Your task to perform on an android device: turn on priority inbox in the gmail app Image 0: 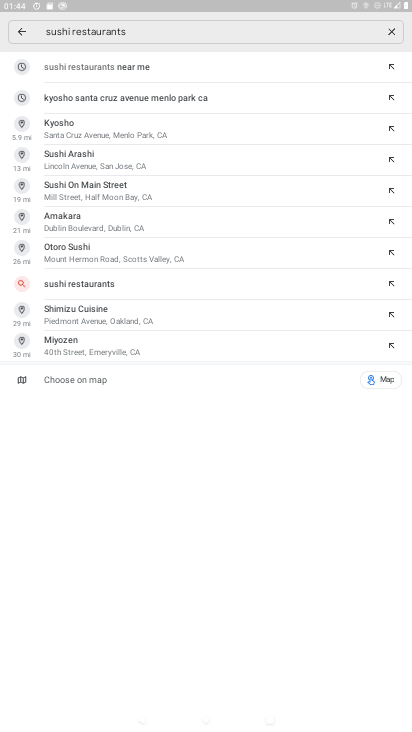
Step 0: press home button
Your task to perform on an android device: turn on priority inbox in the gmail app Image 1: 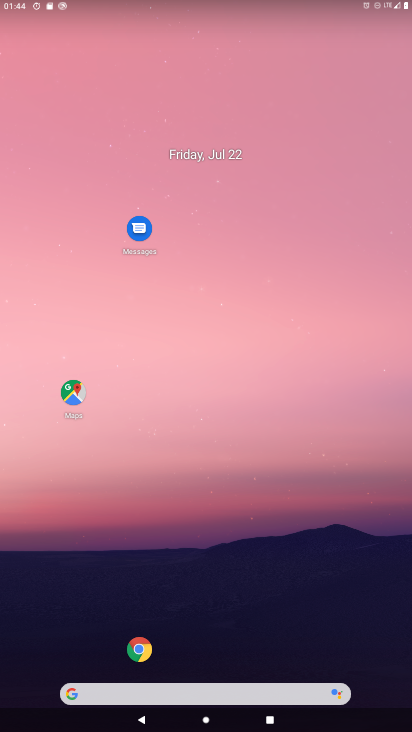
Step 1: drag from (41, 686) to (229, 149)
Your task to perform on an android device: turn on priority inbox in the gmail app Image 2: 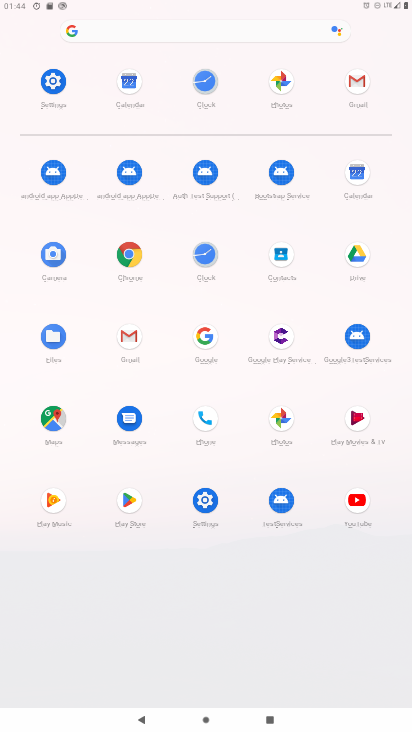
Step 2: click (140, 338)
Your task to perform on an android device: turn on priority inbox in the gmail app Image 3: 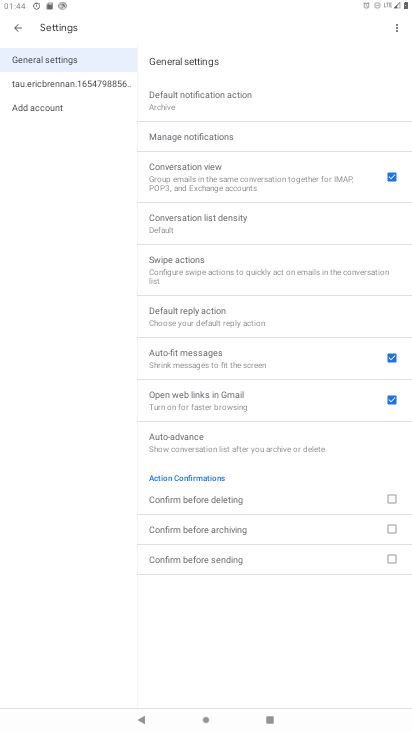
Step 3: click (71, 78)
Your task to perform on an android device: turn on priority inbox in the gmail app Image 4: 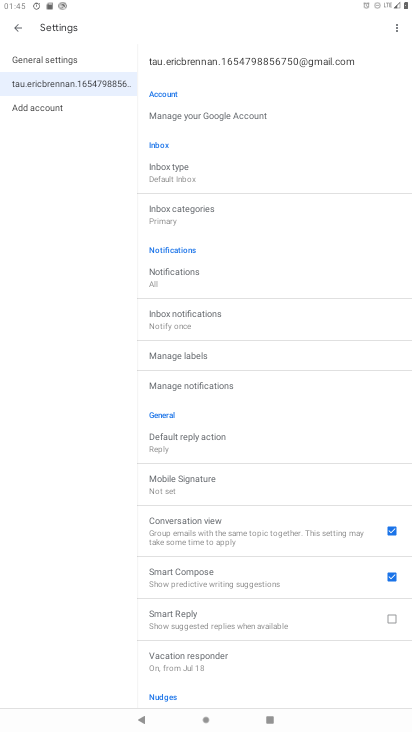
Step 4: click (170, 175)
Your task to perform on an android device: turn on priority inbox in the gmail app Image 5: 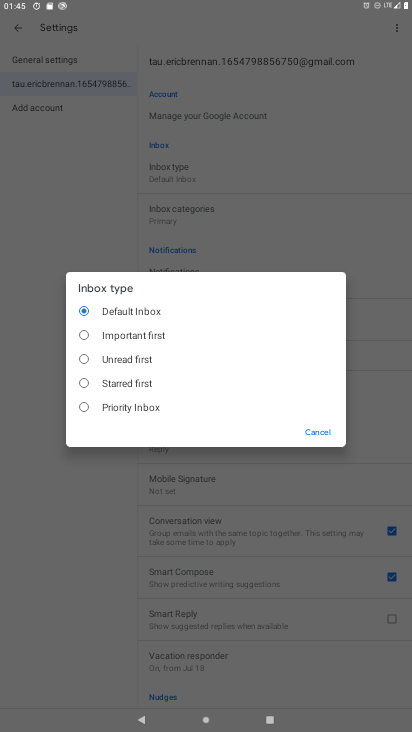
Step 5: click (92, 405)
Your task to perform on an android device: turn on priority inbox in the gmail app Image 6: 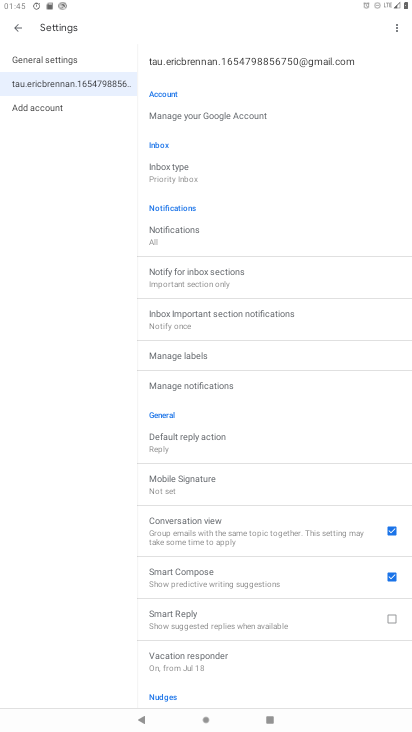
Step 6: task complete